Your task to perform on an android device: add a contact in the contacts app Image 0: 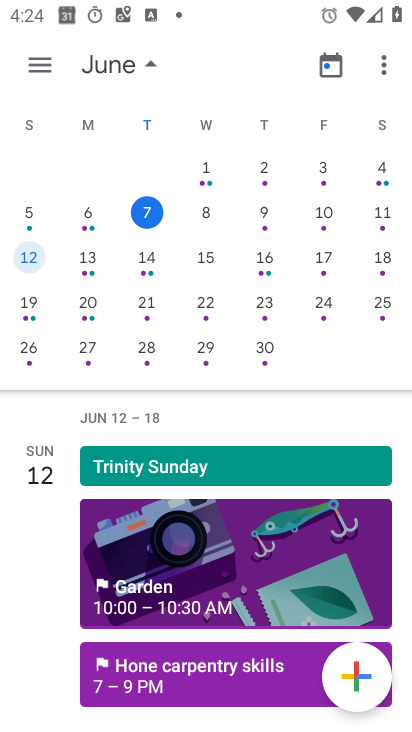
Step 0: press home button
Your task to perform on an android device: add a contact in the contacts app Image 1: 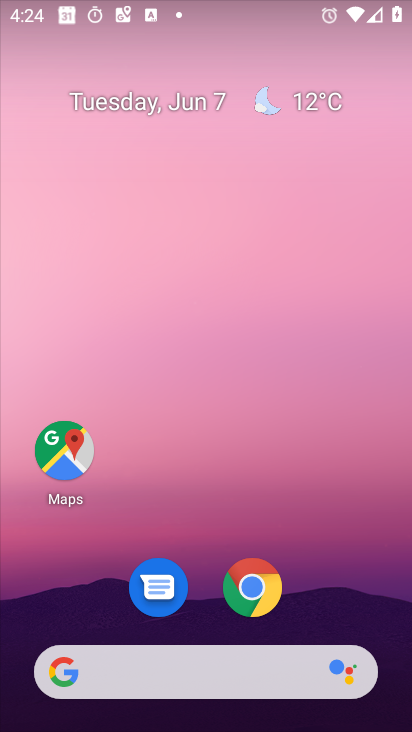
Step 1: drag from (198, 406) to (203, 77)
Your task to perform on an android device: add a contact in the contacts app Image 2: 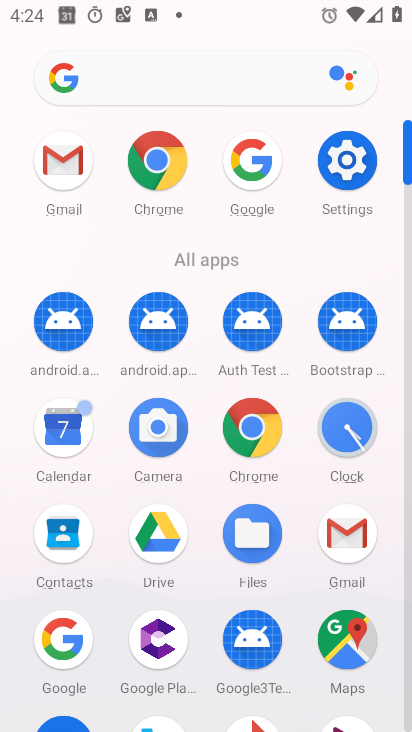
Step 2: click (62, 545)
Your task to perform on an android device: add a contact in the contacts app Image 3: 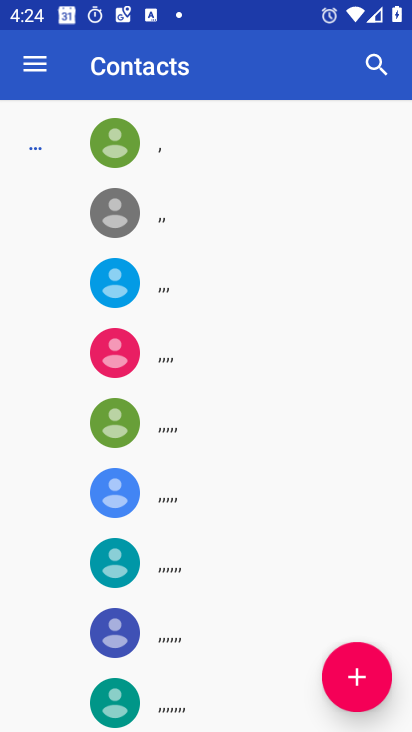
Step 3: click (381, 668)
Your task to perform on an android device: add a contact in the contacts app Image 4: 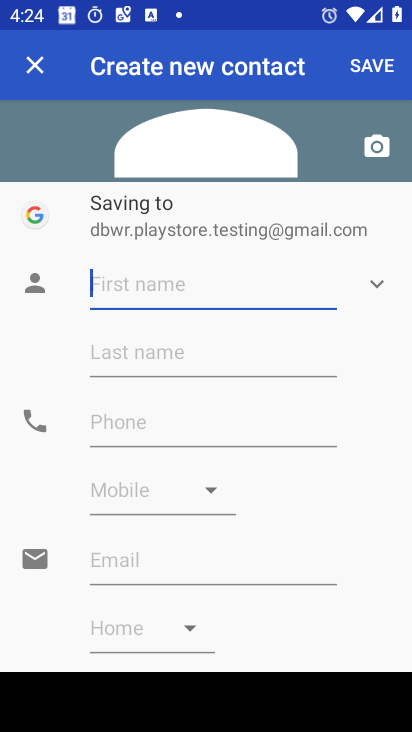
Step 4: type "htfjhf"
Your task to perform on an android device: add a contact in the contacts app Image 5: 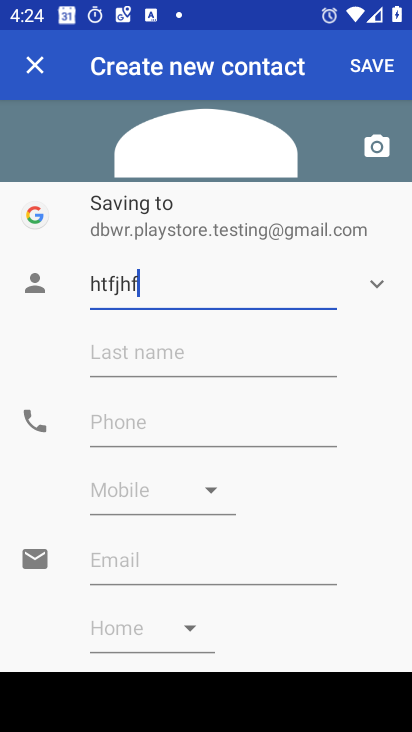
Step 5: click (204, 425)
Your task to perform on an android device: add a contact in the contacts app Image 6: 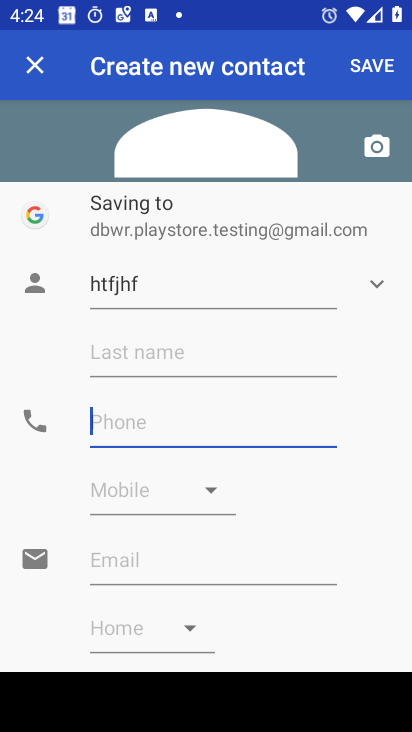
Step 6: type "897648778"
Your task to perform on an android device: add a contact in the contacts app Image 7: 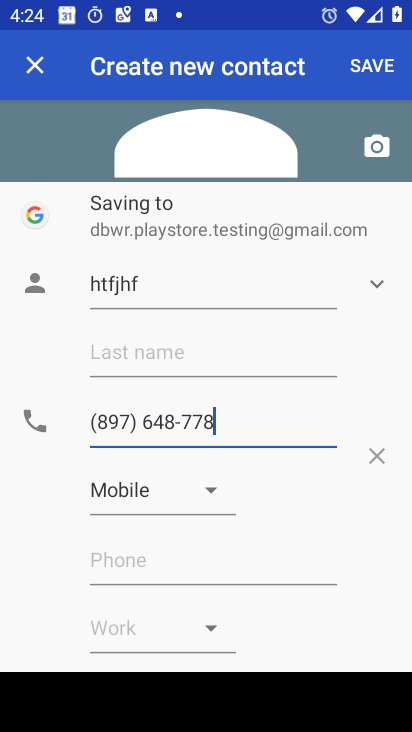
Step 7: click (392, 72)
Your task to perform on an android device: add a contact in the contacts app Image 8: 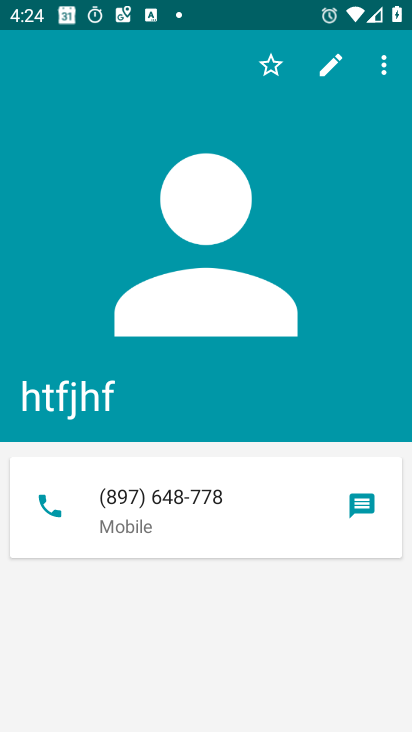
Step 8: task complete